Your task to perform on an android device: manage bookmarks in the chrome app Image 0: 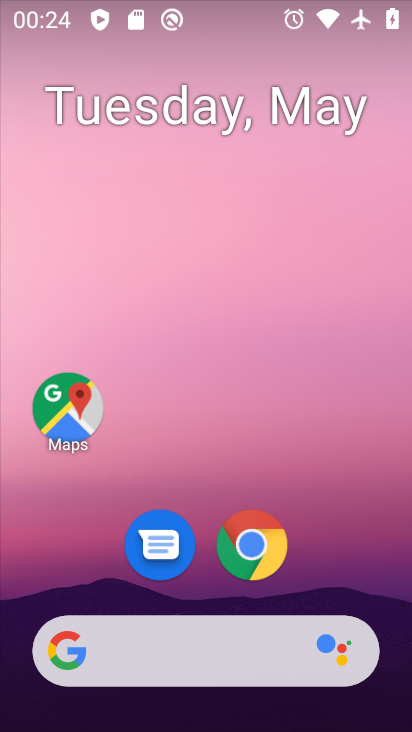
Step 0: click (251, 541)
Your task to perform on an android device: manage bookmarks in the chrome app Image 1: 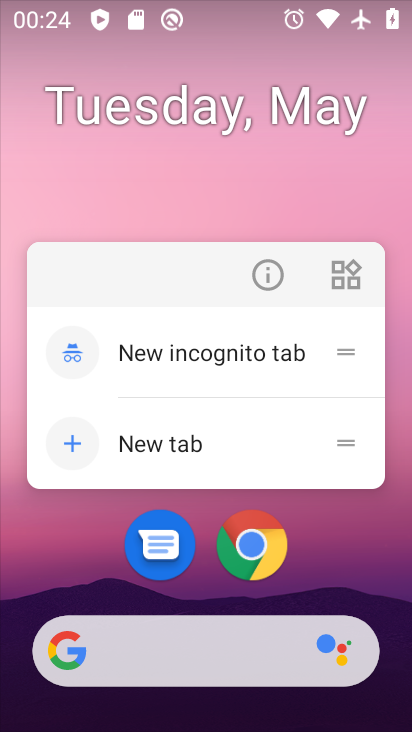
Step 1: click (237, 551)
Your task to perform on an android device: manage bookmarks in the chrome app Image 2: 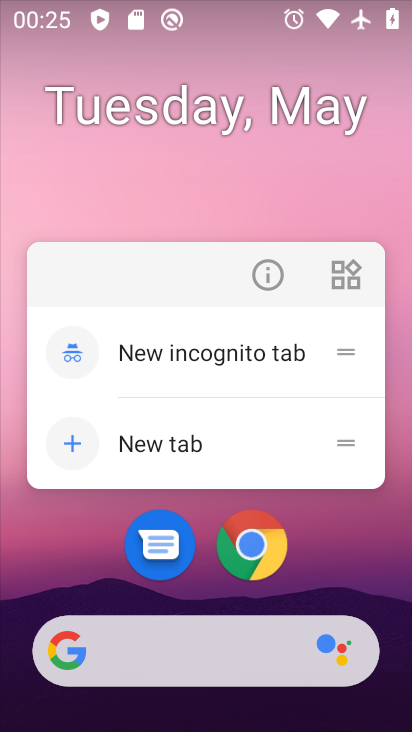
Step 2: click (237, 542)
Your task to perform on an android device: manage bookmarks in the chrome app Image 3: 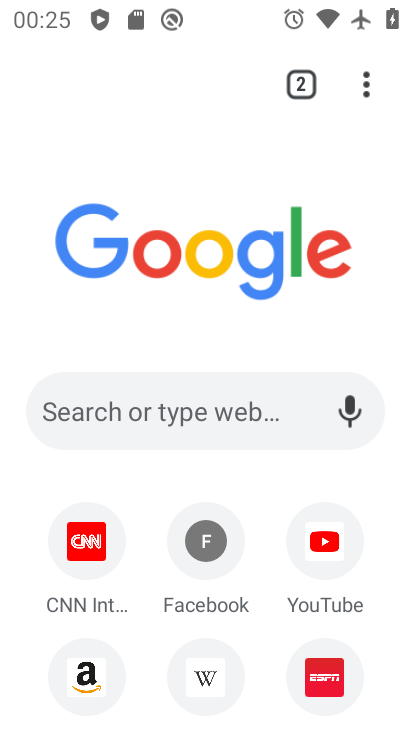
Step 3: click (358, 89)
Your task to perform on an android device: manage bookmarks in the chrome app Image 4: 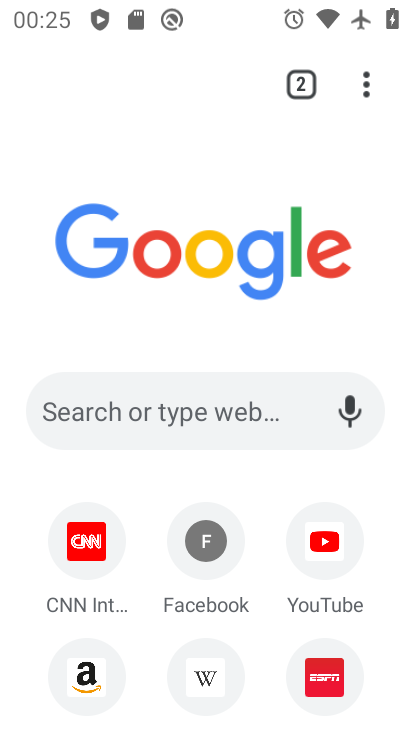
Step 4: click (365, 94)
Your task to perform on an android device: manage bookmarks in the chrome app Image 5: 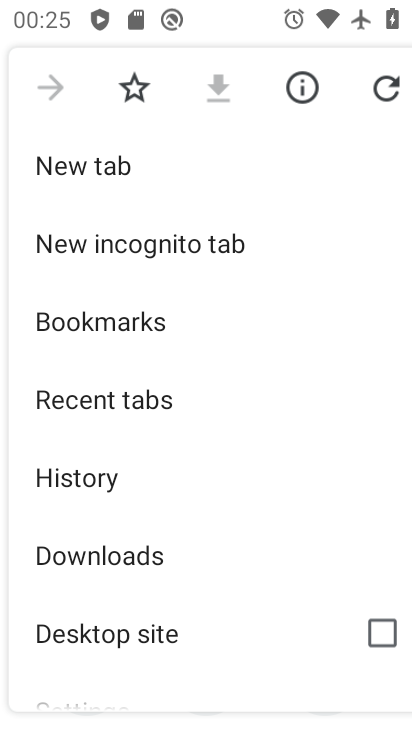
Step 5: click (146, 90)
Your task to perform on an android device: manage bookmarks in the chrome app Image 6: 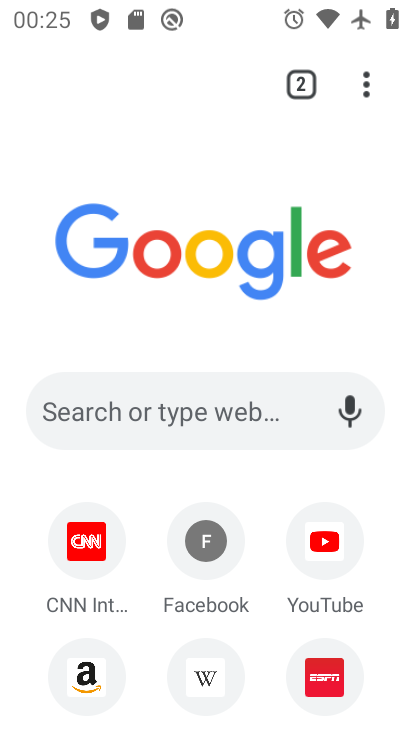
Step 6: task complete